Your task to perform on an android device: visit the assistant section in the google photos Image 0: 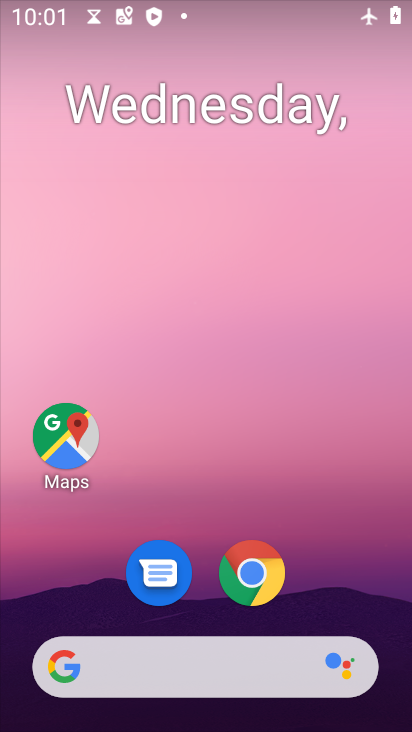
Step 0: drag from (319, 593) to (300, 290)
Your task to perform on an android device: visit the assistant section in the google photos Image 1: 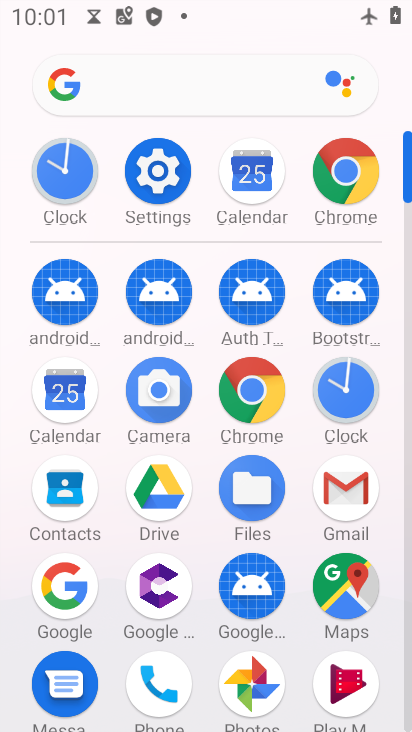
Step 1: click (245, 680)
Your task to perform on an android device: visit the assistant section in the google photos Image 2: 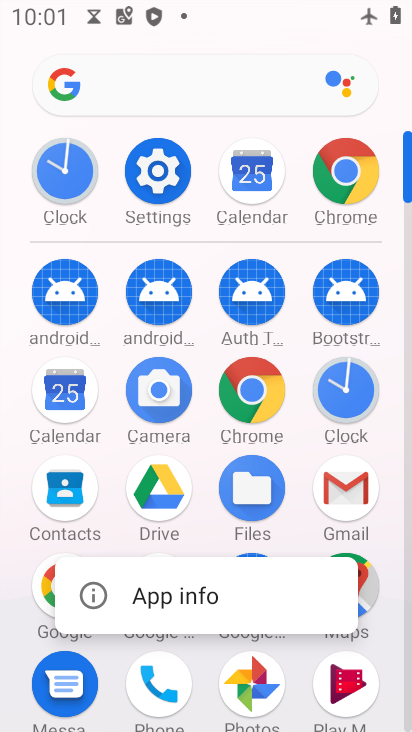
Step 2: click (255, 668)
Your task to perform on an android device: visit the assistant section in the google photos Image 3: 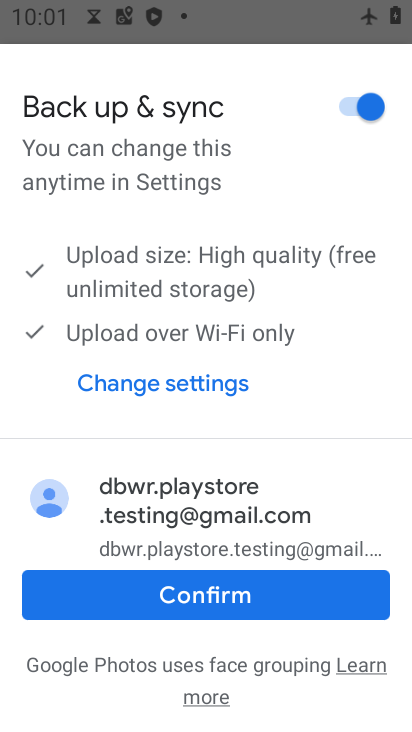
Step 3: click (183, 579)
Your task to perform on an android device: visit the assistant section in the google photos Image 4: 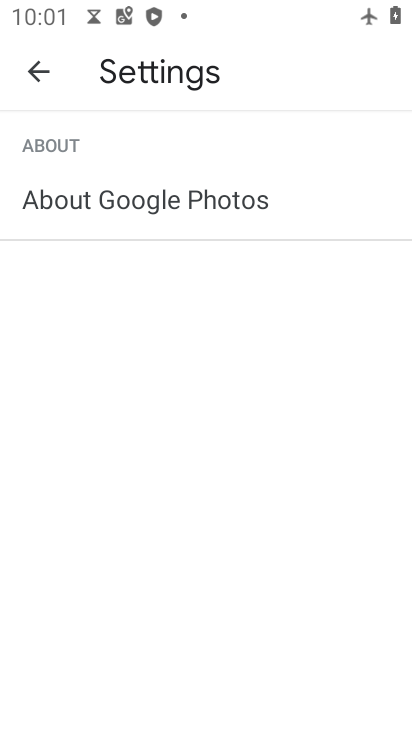
Step 4: press back button
Your task to perform on an android device: visit the assistant section in the google photos Image 5: 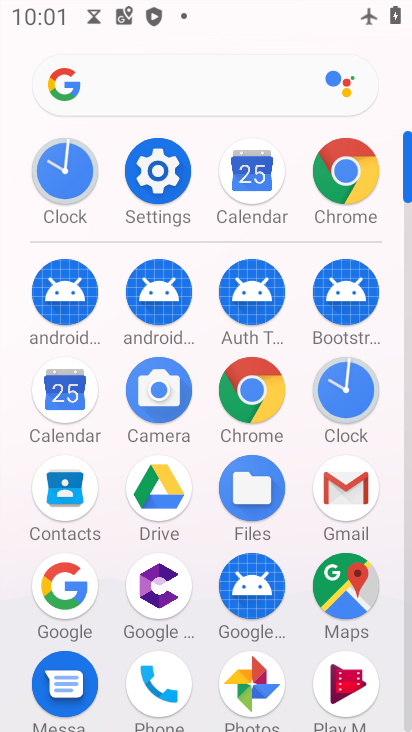
Step 5: click (244, 679)
Your task to perform on an android device: visit the assistant section in the google photos Image 6: 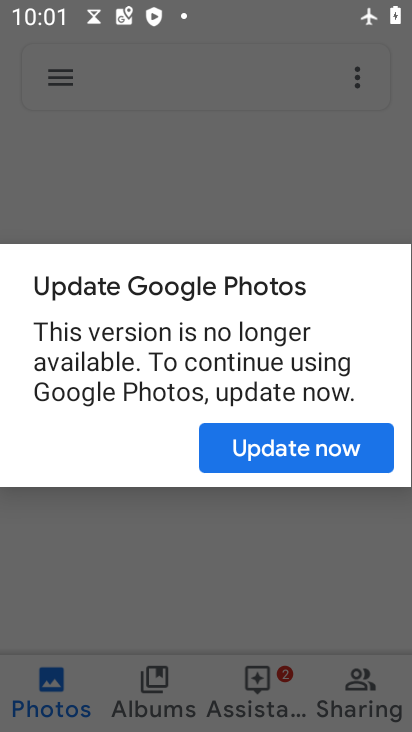
Step 6: click (254, 679)
Your task to perform on an android device: visit the assistant section in the google photos Image 7: 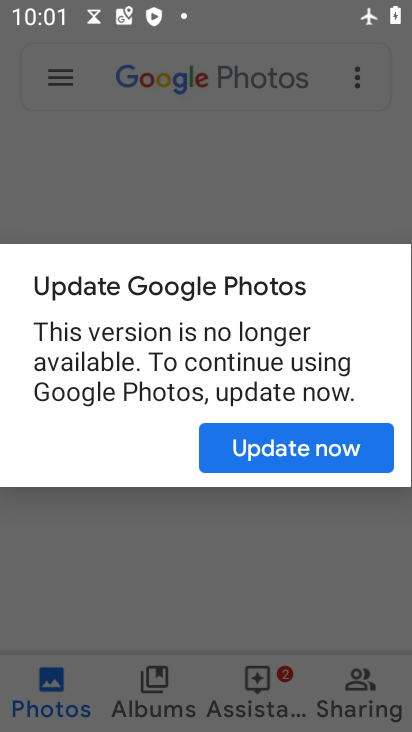
Step 7: click (270, 439)
Your task to perform on an android device: visit the assistant section in the google photos Image 8: 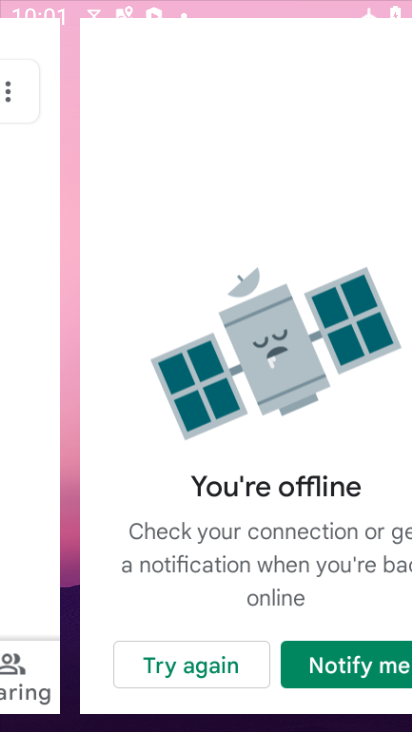
Step 8: press back button
Your task to perform on an android device: visit the assistant section in the google photos Image 9: 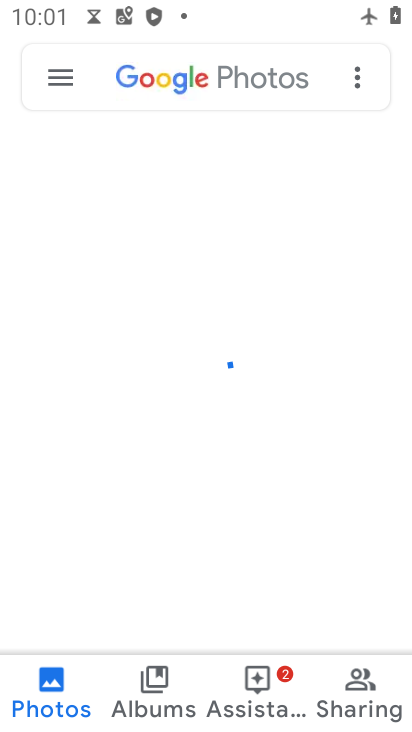
Step 9: click (243, 675)
Your task to perform on an android device: visit the assistant section in the google photos Image 10: 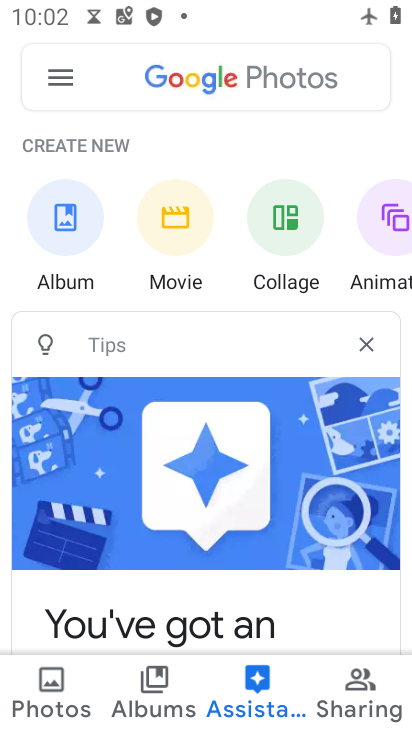
Step 10: task complete